Your task to perform on an android device: turn off location history Image 0: 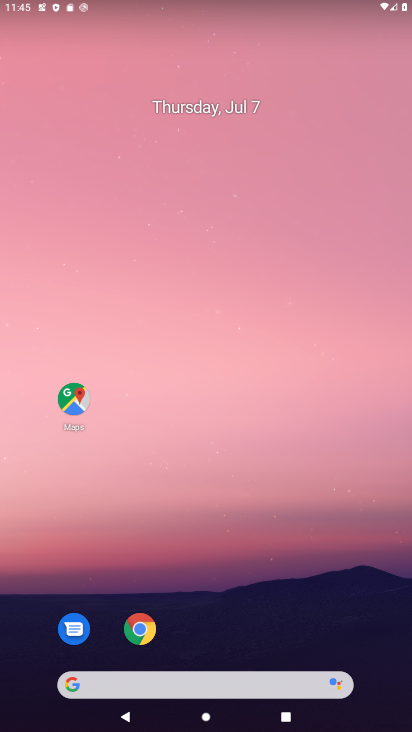
Step 0: click (71, 392)
Your task to perform on an android device: turn off location history Image 1: 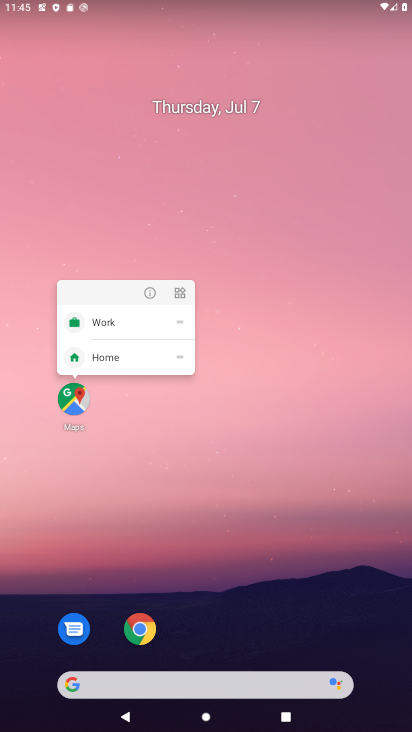
Step 1: click (71, 400)
Your task to perform on an android device: turn off location history Image 2: 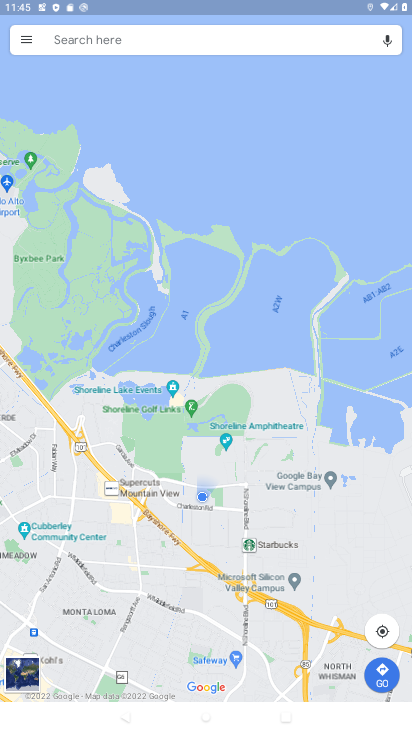
Step 2: click (27, 43)
Your task to perform on an android device: turn off location history Image 3: 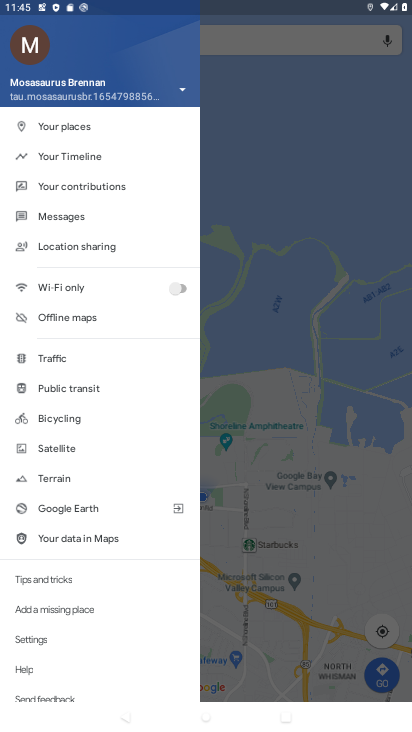
Step 3: click (40, 635)
Your task to perform on an android device: turn off location history Image 4: 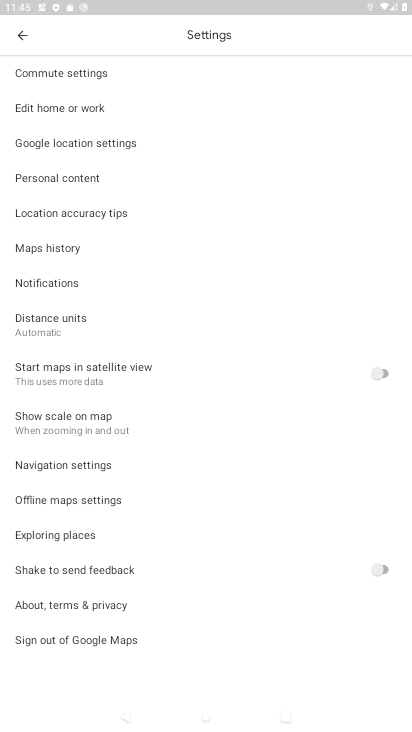
Step 4: click (53, 178)
Your task to perform on an android device: turn off location history Image 5: 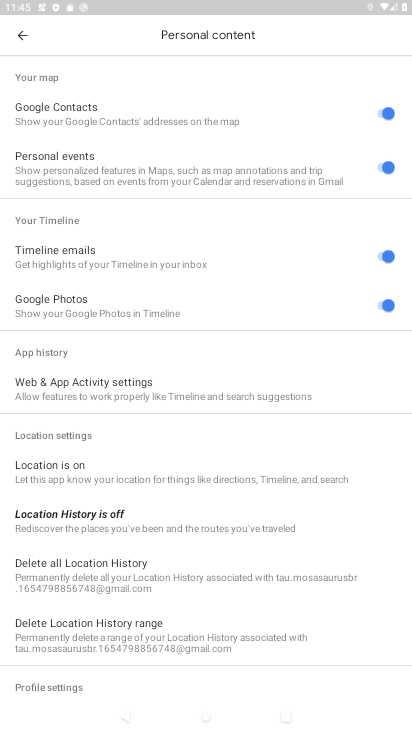
Step 5: task complete